Your task to perform on an android device: delete a single message in the gmail app Image 0: 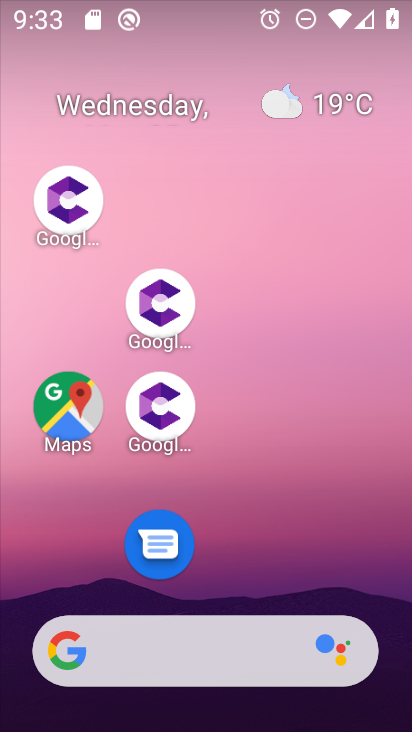
Step 0: drag from (323, 499) to (192, 120)
Your task to perform on an android device: delete a single message in the gmail app Image 1: 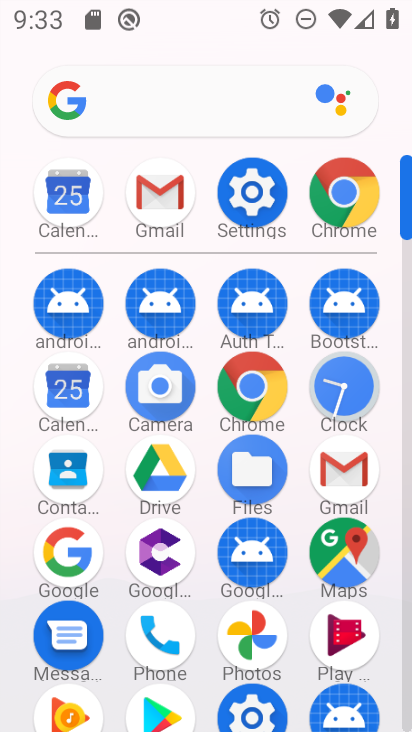
Step 1: click (146, 185)
Your task to perform on an android device: delete a single message in the gmail app Image 2: 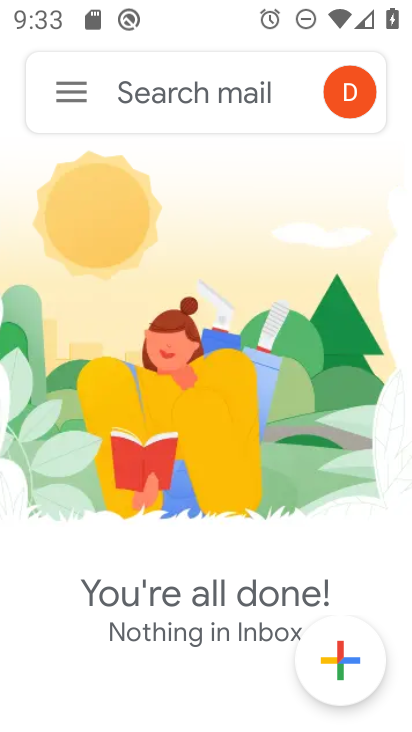
Step 2: click (69, 96)
Your task to perform on an android device: delete a single message in the gmail app Image 3: 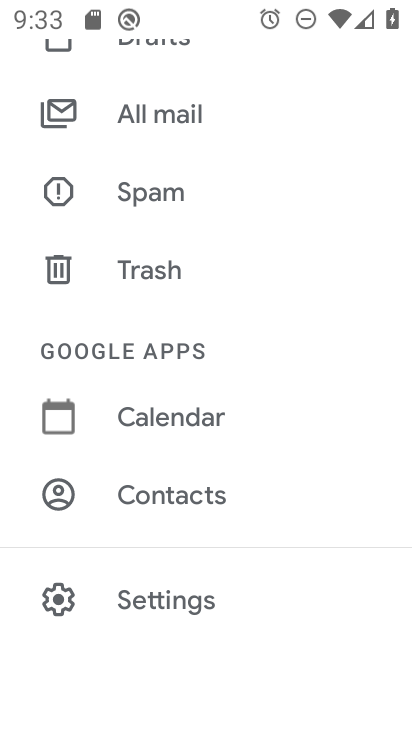
Step 3: click (147, 99)
Your task to perform on an android device: delete a single message in the gmail app Image 4: 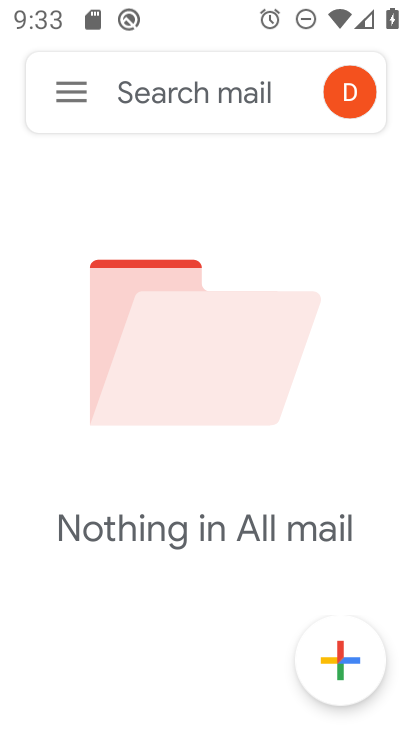
Step 4: task complete